Your task to perform on an android device: turn on wifi Image 0: 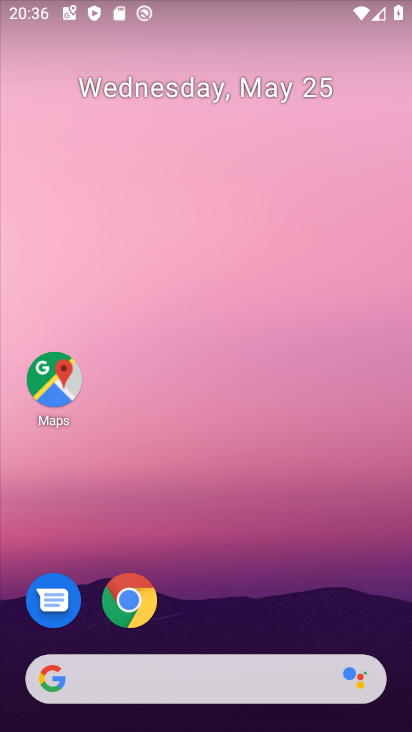
Step 0: drag from (315, 609) to (262, 197)
Your task to perform on an android device: turn on wifi Image 1: 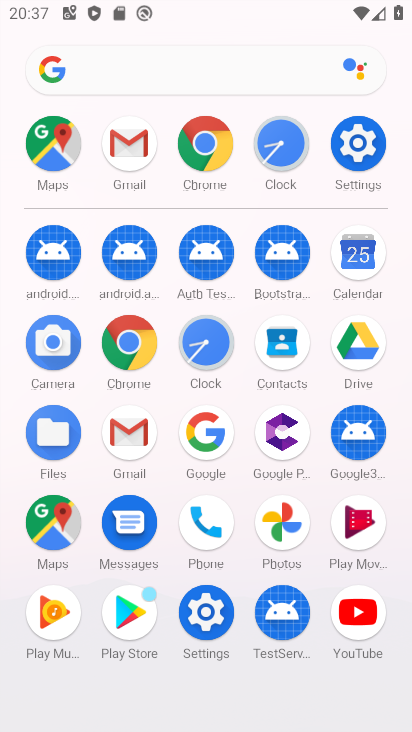
Step 1: click (363, 160)
Your task to perform on an android device: turn on wifi Image 2: 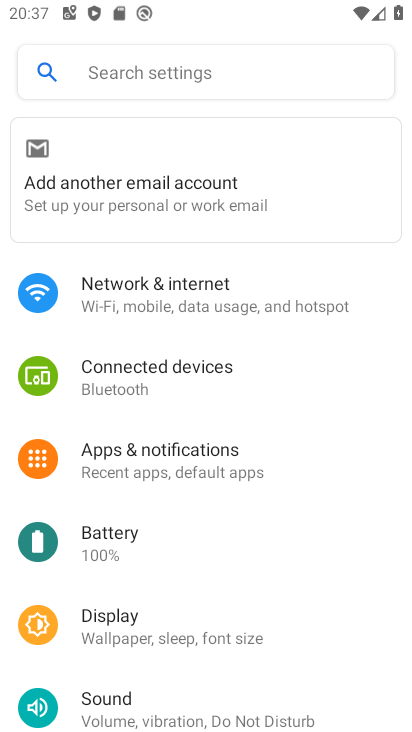
Step 2: click (232, 292)
Your task to perform on an android device: turn on wifi Image 3: 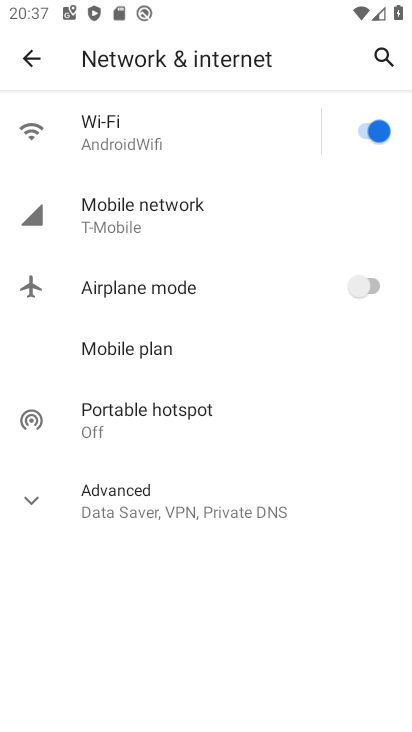
Step 3: click (172, 141)
Your task to perform on an android device: turn on wifi Image 4: 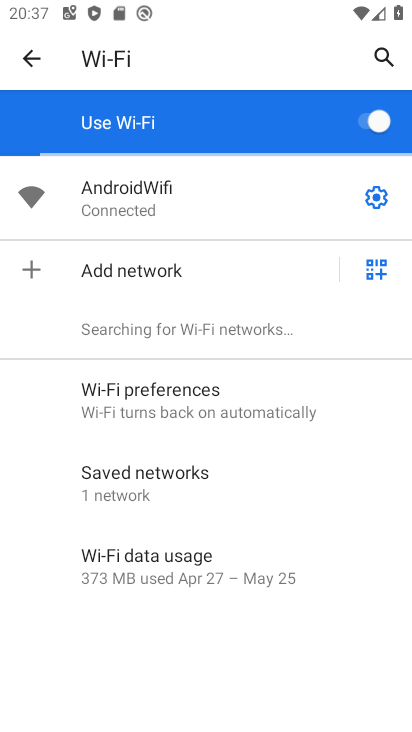
Step 4: task complete